Your task to perform on an android device: Search for vegetarian restaurants on Maps Image 0: 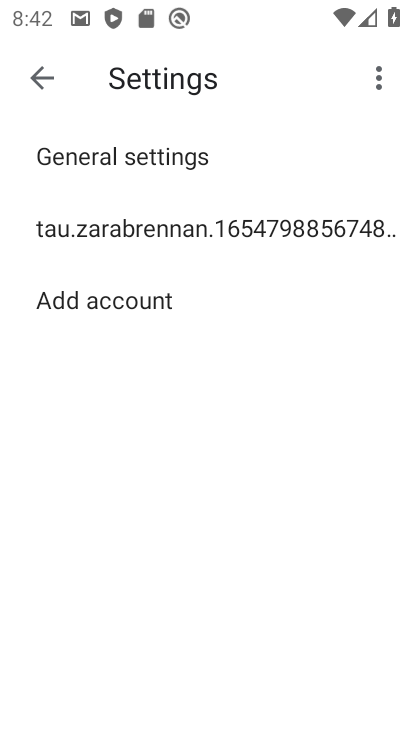
Step 0: press back button
Your task to perform on an android device: Search for vegetarian restaurants on Maps Image 1: 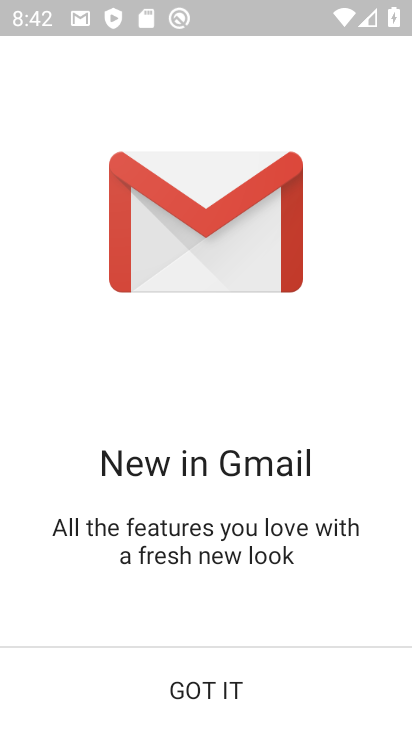
Step 1: press back button
Your task to perform on an android device: Search for vegetarian restaurants on Maps Image 2: 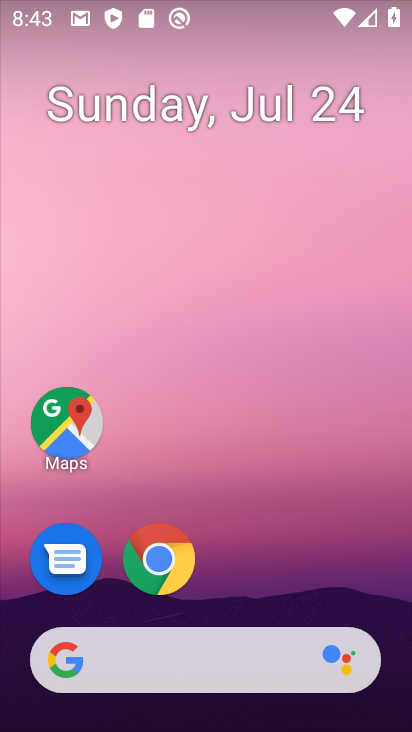
Step 2: click (56, 398)
Your task to perform on an android device: Search for vegetarian restaurants on Maps Image 3: 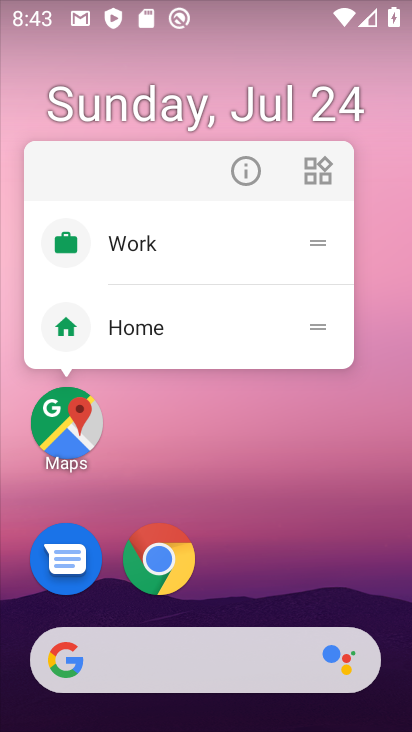
Step 3: click (57, 426)
Your task to perform on an android device: Search for vegetarian restaurants on Maps Image 4: 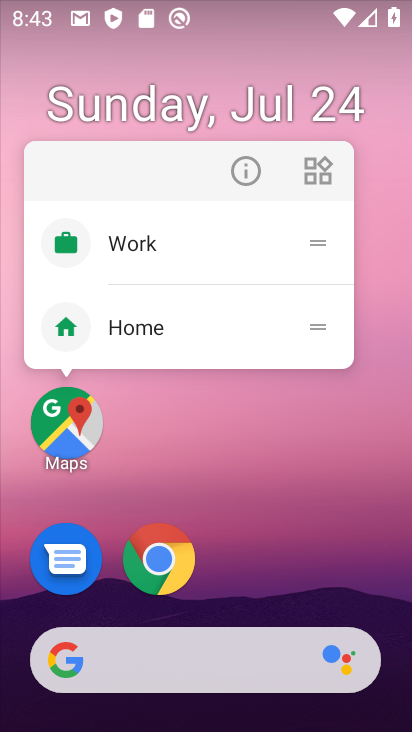
Step 4: click (55, 413)
Your task to perform on an android device: Search for vegetarian restaurants on Maps Image 5: 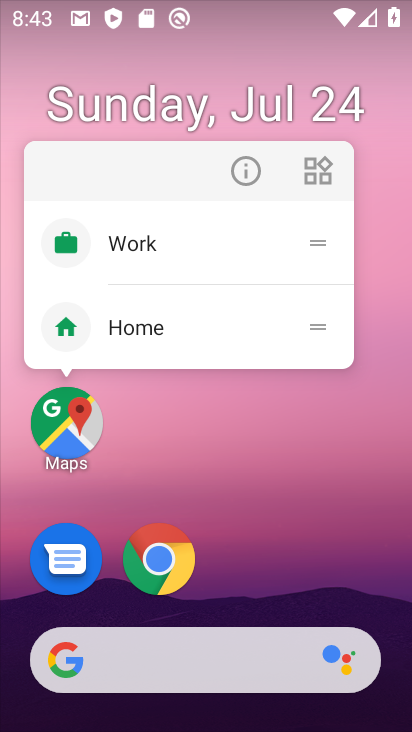
Step 5: click (47, 428)
Your task to perform on an android device: Search for vegetarian restaurants on Maps Image 6: 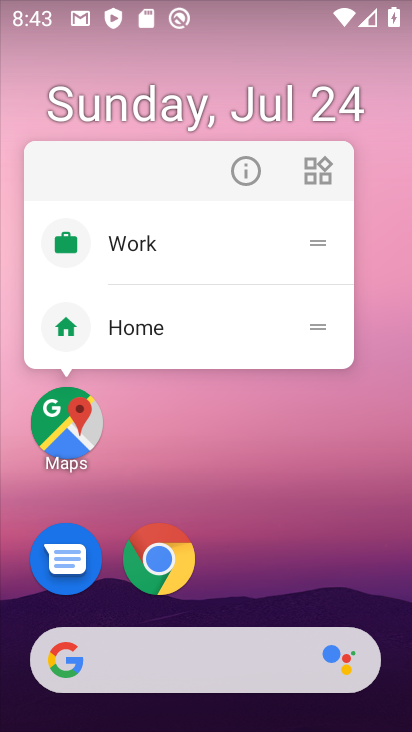
Step 6: click (48, 427)
Your task to perform on an android device: Search for vegetarian restaurants on Maps Image 7: 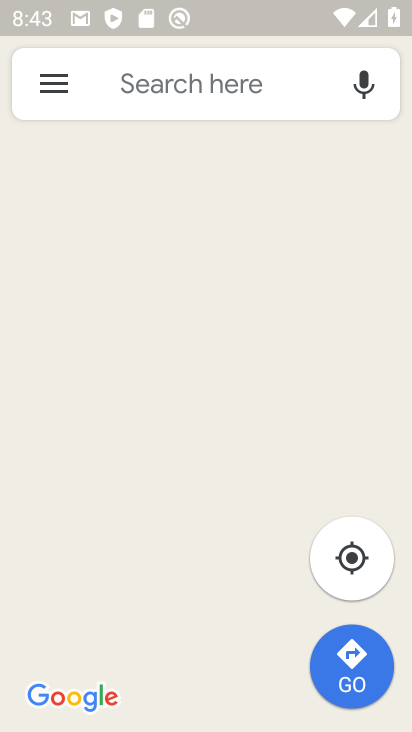
Step 7: click (148, 84)
Your task to perform on an android device: Search for vegetarian restaurants on Maps Image 8: 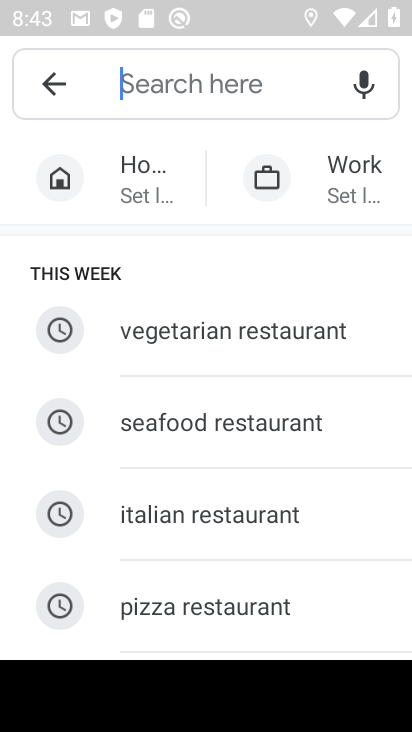
Step 8: type "vegeta"
Your task to perform on an android device: Search for vegetarian restaurants on Maps Image 9: 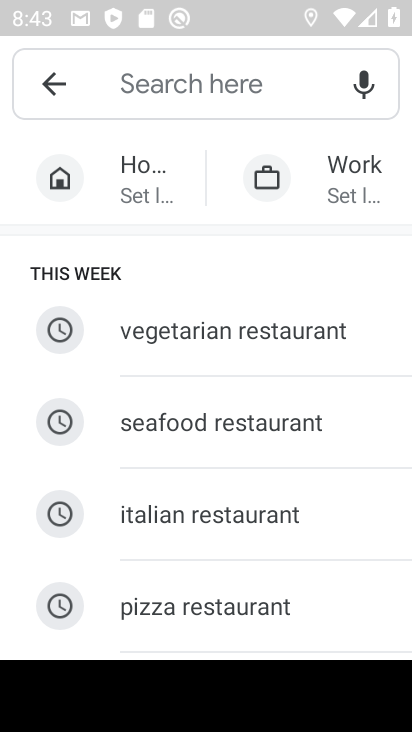
Step 9: click (280, 327)
Your task to perform on an android device: Search for vegetarian restaurants on Maps Image 10: 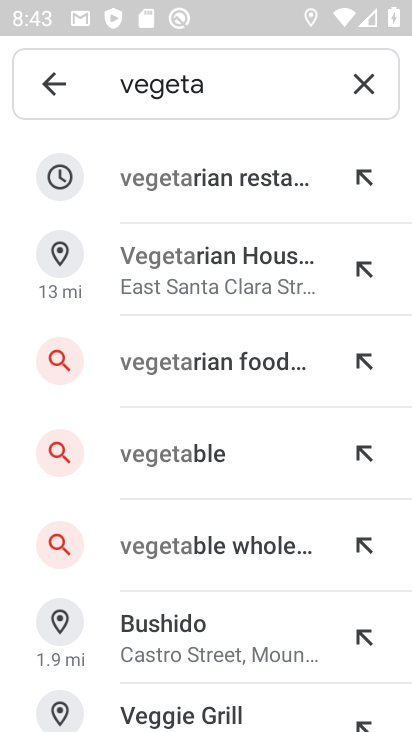
Step 10: click (186, 168)
Your task to perform on an android device: Search for vegetarian restaurants on Maps Image 11: 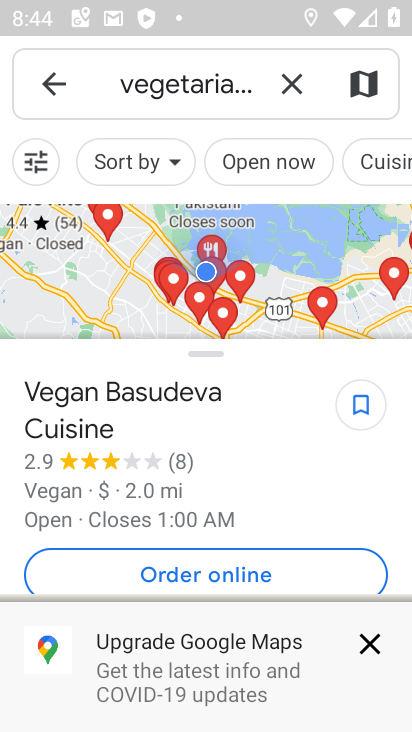
Step 11: task complete